Your task to perform on an android device: Go to ESPN.com Image 0: 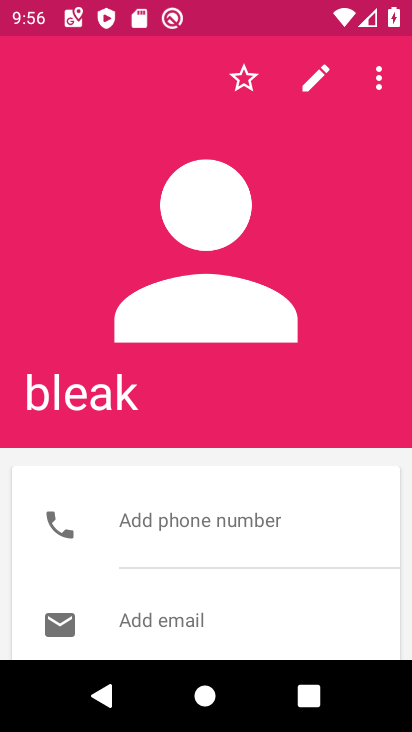
Step 0: press home button
Your task to perform on an android device: Go to ESPN.com Image 1: 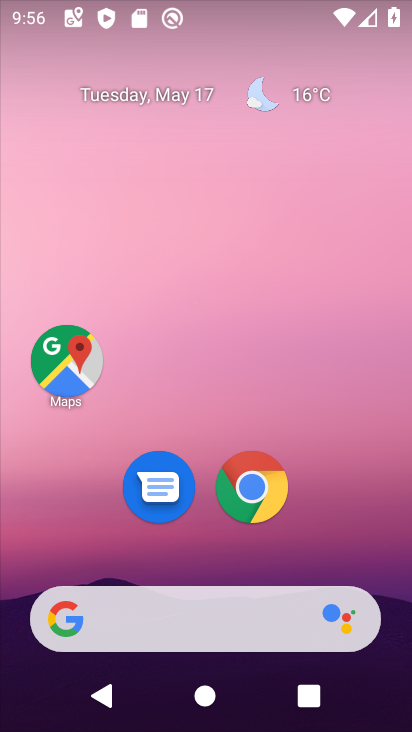
Step 1: click (258, 493)
Your task to perform on an android device: Go to ESPN.com Image 2: 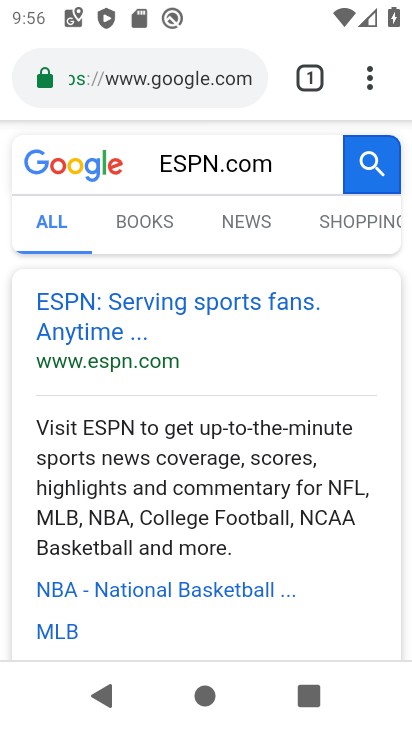
Step 2: click (167, 309)
Your task to perform on an android device: Go to ESPN.com Image 3: 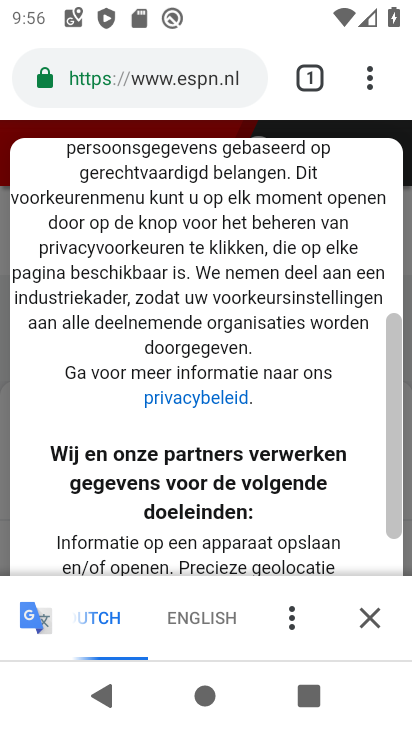
Step 3: task complete